Your task to perform on an android device: turn off sleep mode Image 0: 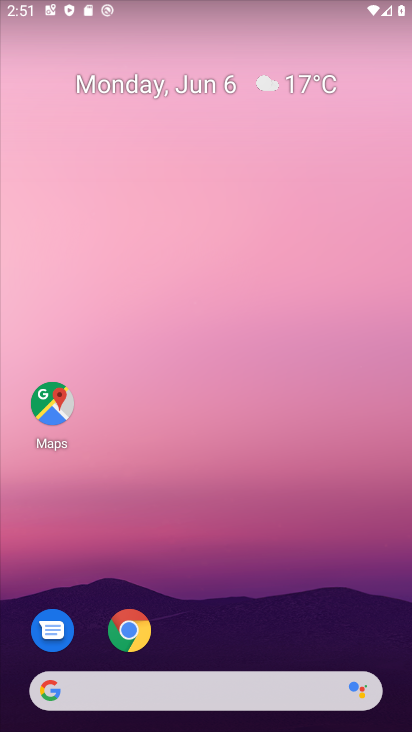
Step 0: drag from (256, 617) to (256, 276)
Your task to perform on an android device: turn off sleep mode Image 1: 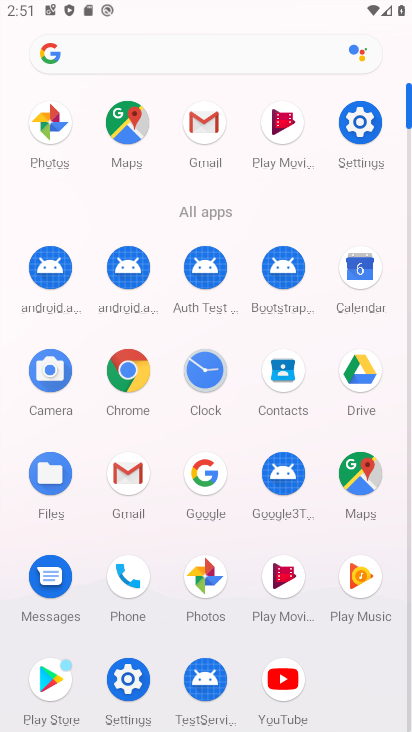
Step 1: click (352, 122)
Your task to perform on an android device: turn off sleep mode Image 2: 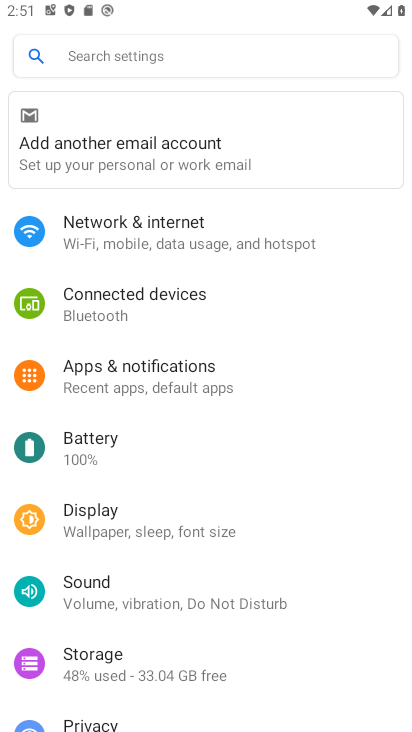
Step 2: task complete